Your task to perform on an android device: See recent photos Image 0: 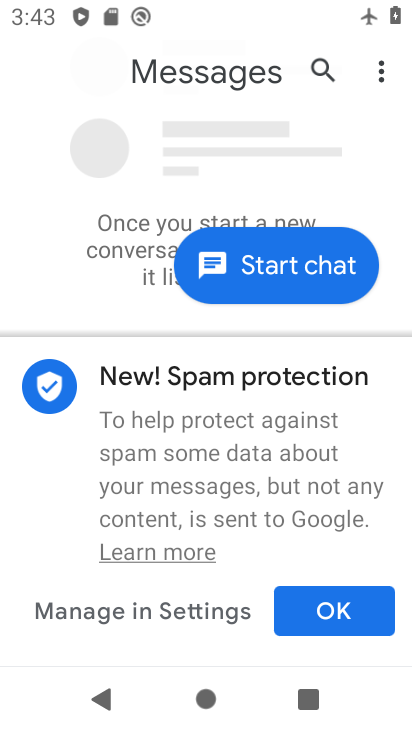
Step 0: press home button
Your task to perform on an android device: See recent photos Image 1: 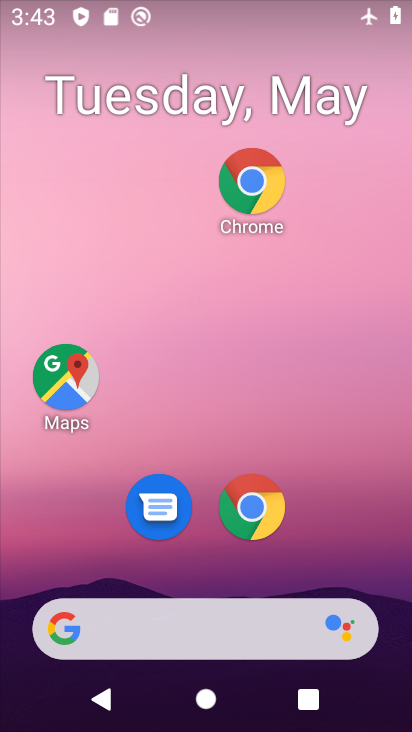
Step 1: drag from (331, 545) to (335, 194)
Your task to perform on an android device: See recent photos Image 2: 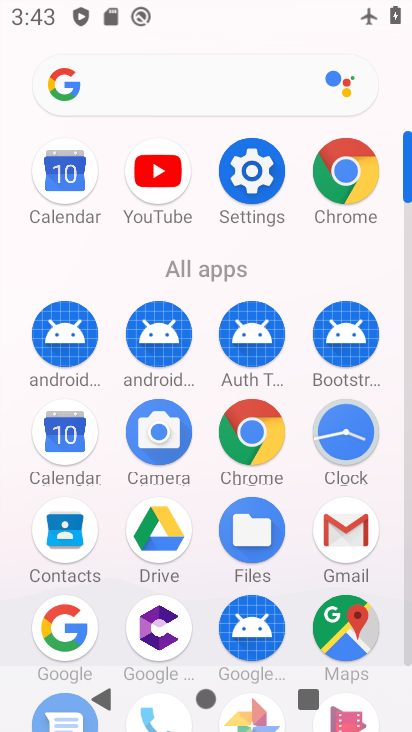
Step 2: drag from (395, 589) to (397, 267)
Your task to perform on an android device: See recent photos Image 3: 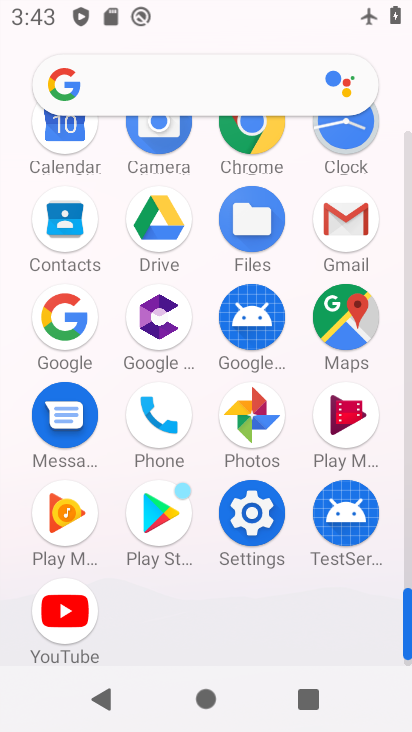
Step 3: click (247, 428)
Your task to perform on an android device: See recent photos Image 4: 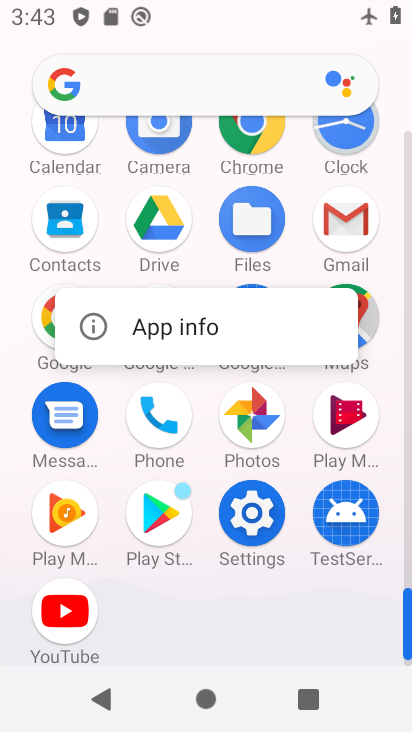
Step 4: click (247, 427)
Your task to perform on an android device: See recent photos Image 5: 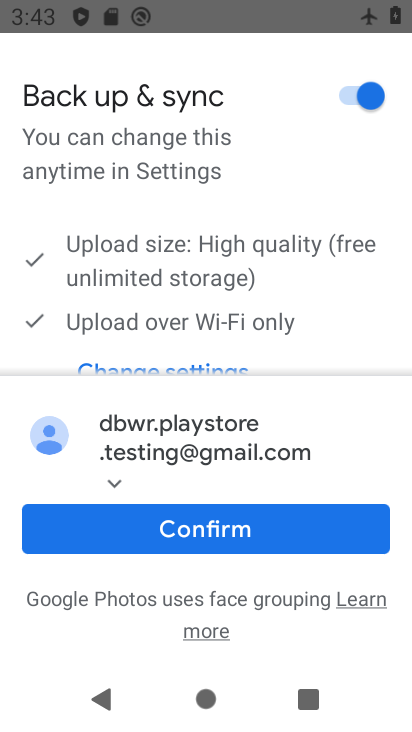
Step 5: click (233, 532)
Your task to perform on an android device: See recent photos Image 6: 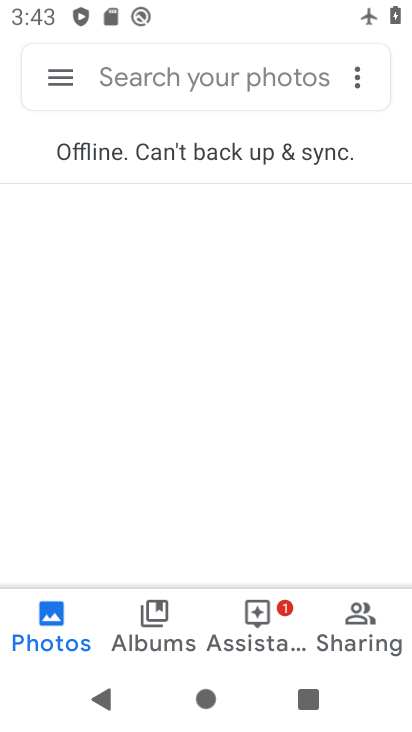
Step 6: click (170, 485)
Your task to perform on an android device: See recent photos Image 7: 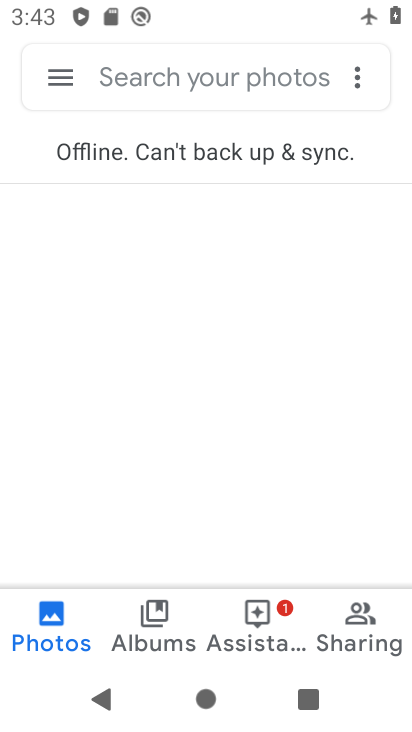
Step 7: click (170, 484)
Your task to perform on an android device: See recent photos Image 8: 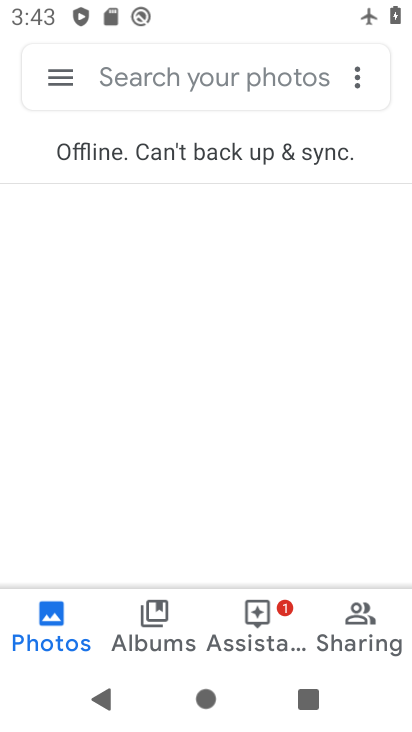
Step 8: click (264, 165)
Your task to perform on an android device: See recent photos Image 9: 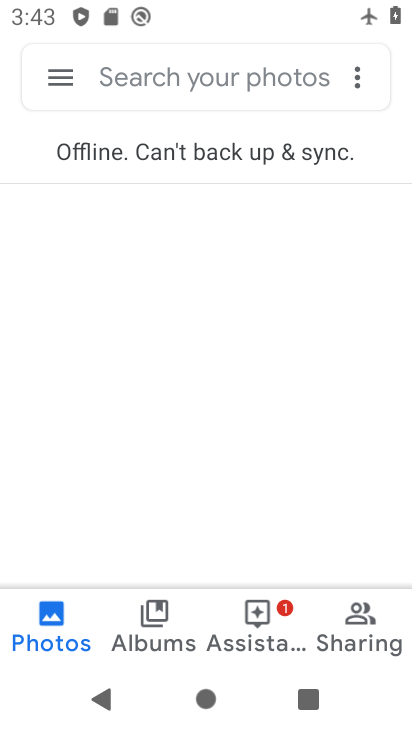
Step 9: click (278, 187)
Your task to perform on an android device: See recent photos Image 10: 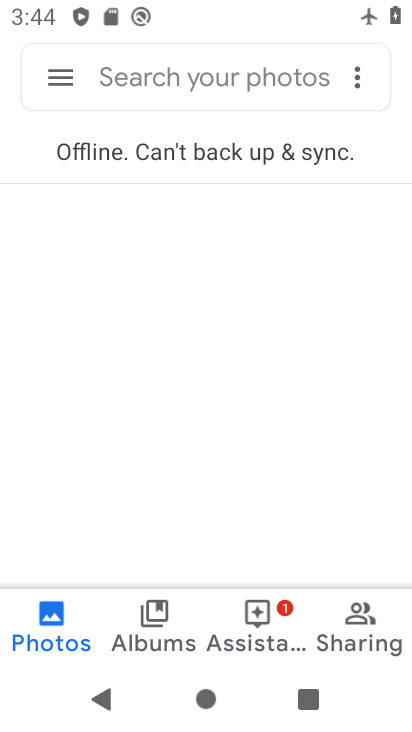
Step 10: click (252, 340)
Your task to perform on an android device: See recent photos Image 11: 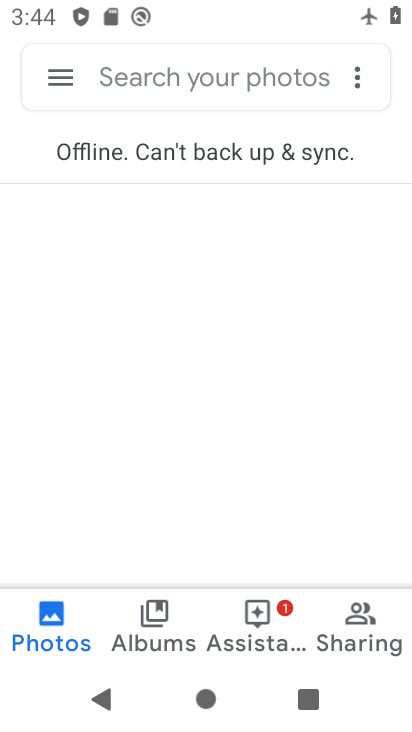
Step 11: task complete